Your task to perform on an android device: turn on bluetooth scan Image 0: 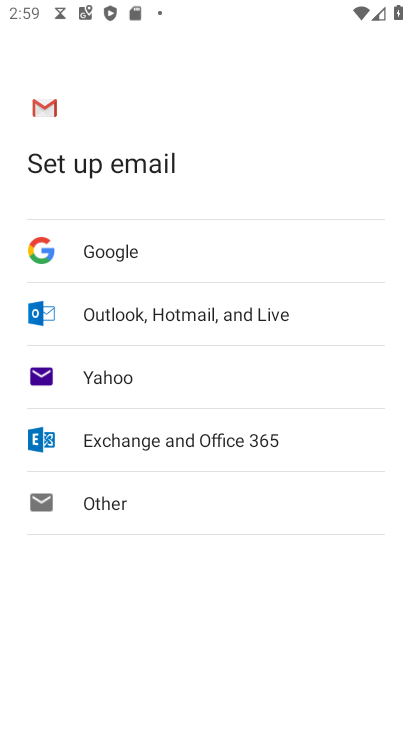
Step 0: press home button
Your task to perform on an android device: turn on bluetooth scan Image 1: 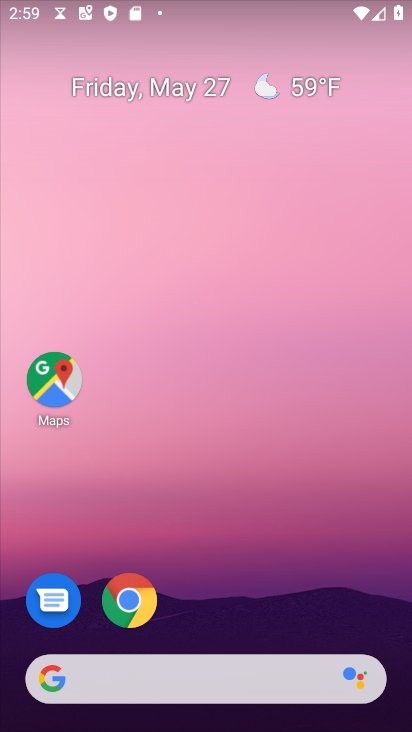
Step 1: drag from (241, 600) to (235, 7)
Your task to perform on an android device: turn on bluetooth scan Image 2: 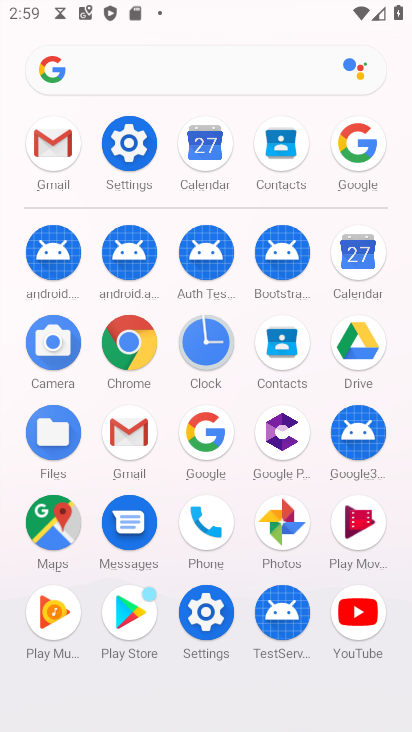
Step 2: click (128, 142)
Your task to perform on an android device: turn on bluetooth scan Image 3: 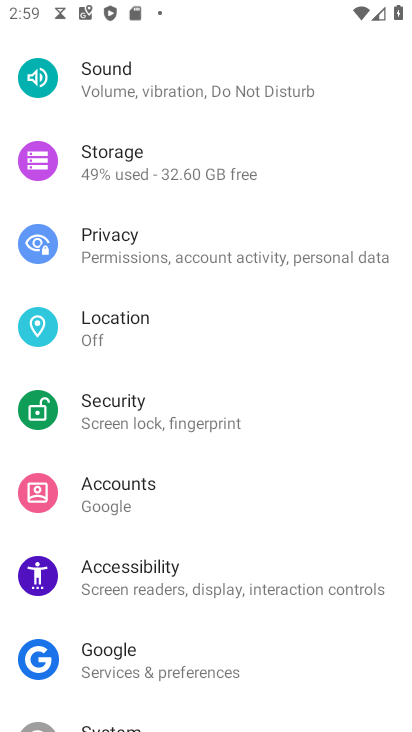
Step 3: drag from (186, 205) to (224, 322)
Your task to perform on an android device: turn on bluetooth scan Image 4: 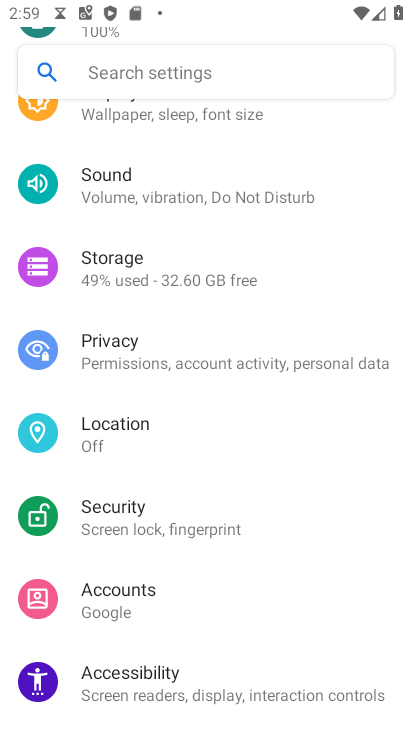
Step 4: drag from (191, 144) to (184, 272)
Your task to perform on an android device: turn on bluetooth scan Image 5: 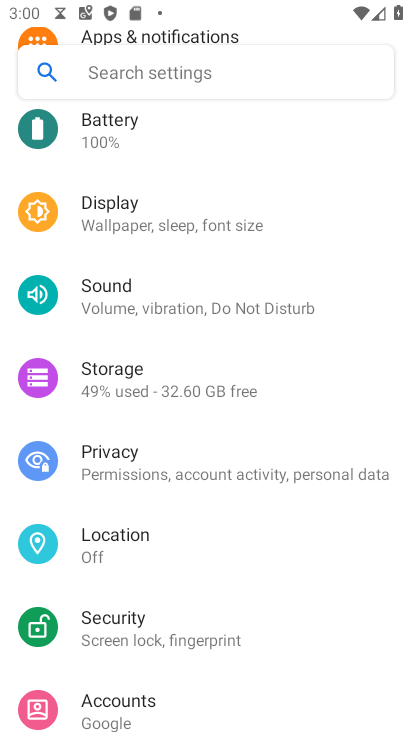
Step 5: drag from (170, 187) to (187, 278)
Your task to perform on an android device: turn on bluetooth scan Image 6: 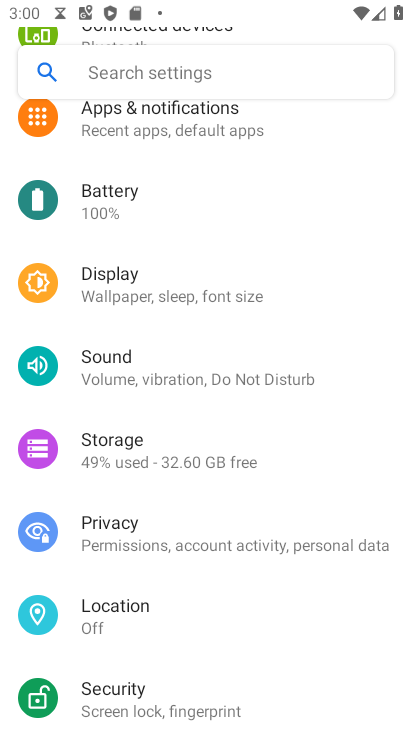
Step 6: drag from (180, 188) to (200, 310)
Your task to perform on an android device: turn on bluetooth scan Image 7: 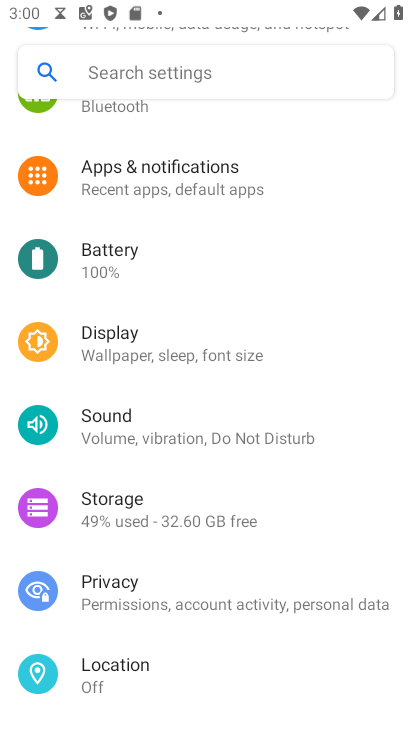
Step 7: drag from (163, 229) to (186, 336)
Your task to perform on an android device: turn on bluetooth scan Image 8: 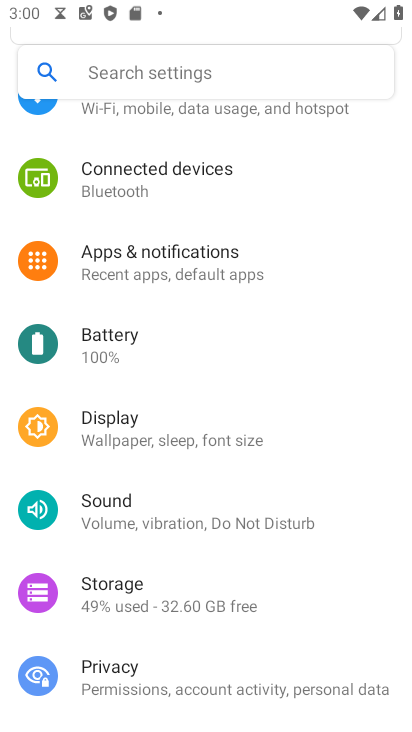
Step 8: drag from (160, 565) to (199, 439)
Your task to perform on an android device: turn on bluetooth scan Image 9: 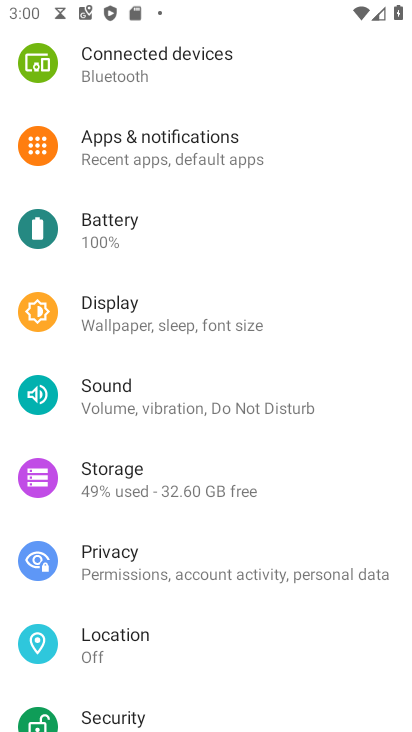
Step 9: click (162, 635)
Your task to perform on an android device: turn on bluetooth scan Image 10: 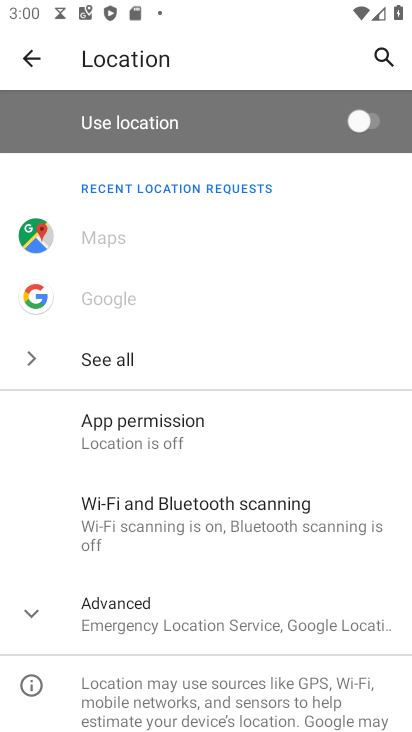
Step 10: click (241, 511)
Your task to perform on an android device: turn on bluetooth scan Image 11: 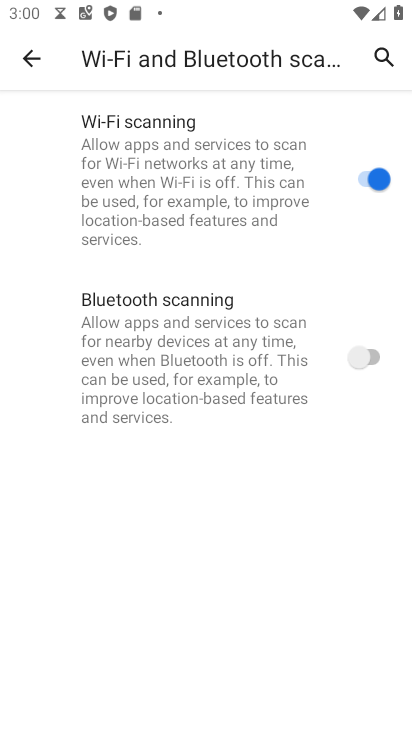
Step 11: click (371, 350)
Your task to perform on an android device: turn on bluetooth scan Image 12: 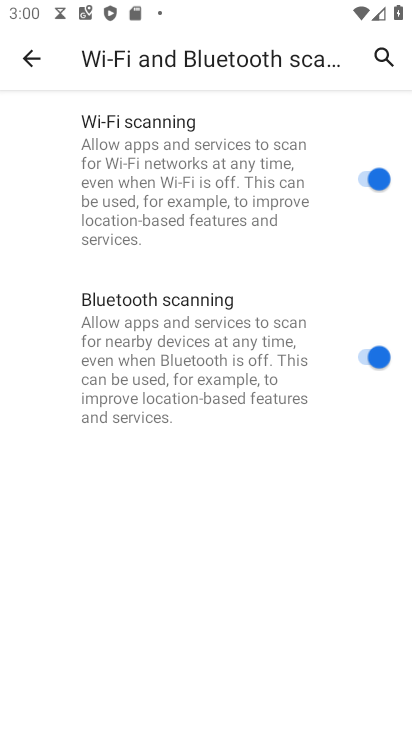
Step 12: task complete